Your task to perform on an android device: turn on the 24-hour format for clock Image 0: 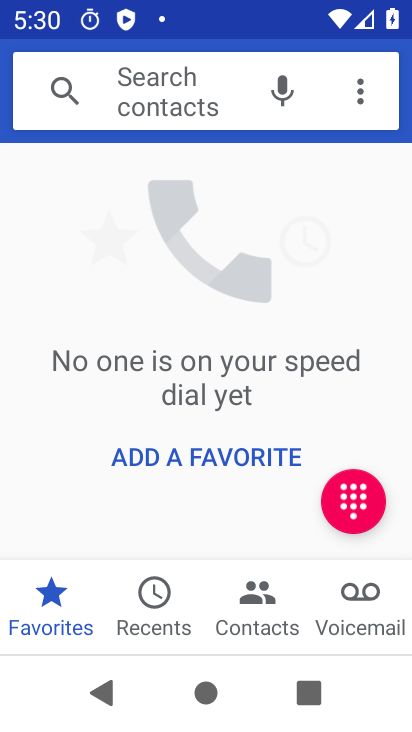
Step 0: press home button
Your task to perform on an android device: turn on the 24-hour format for clock Image 1: 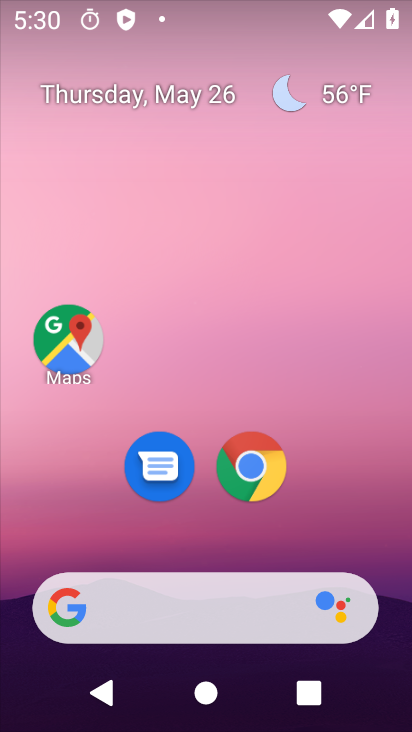
Step 1: drag from (333, 543) to (339, 102)
Your task to perform on an android device: turn on the 24-hour format for clock Image 2: 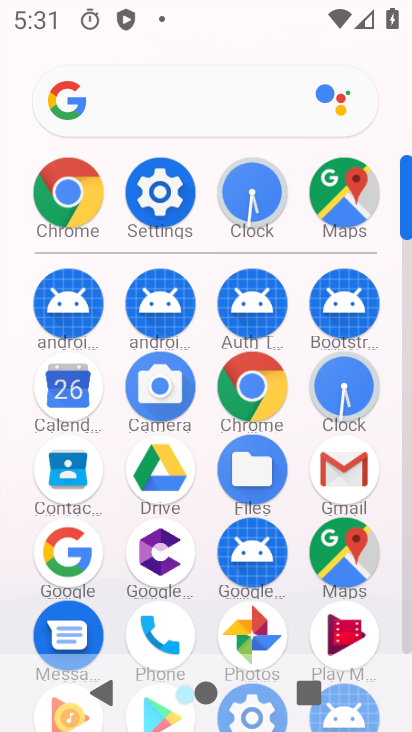
Step 2: click (348, 386)
Your task to perform on an android device: turn on the 24-hour format for clock Image 3: 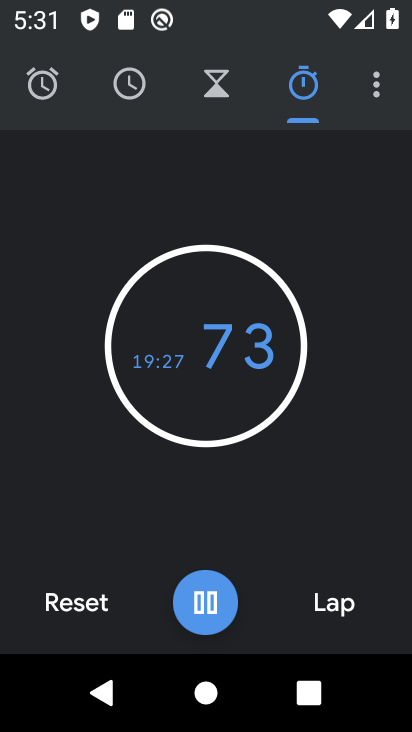
Step 3: click (375, 82)
Your task to perform on an android device: turn on the 24-hour format for clock Image 4: 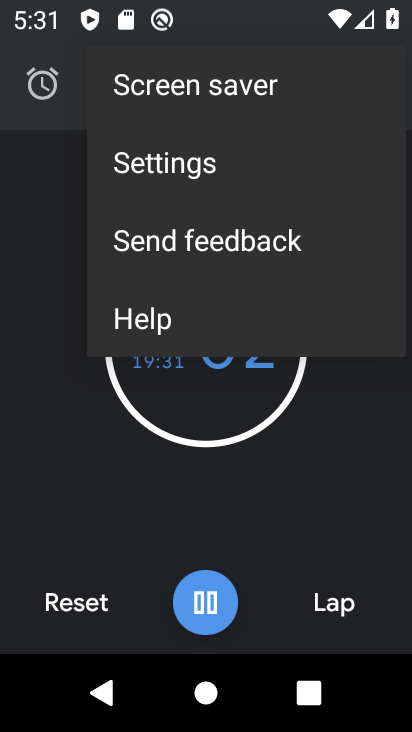
Step 4: click (190, 172)
Your task to perform on an android device: turn on the 24-hour format for clock Image 5: 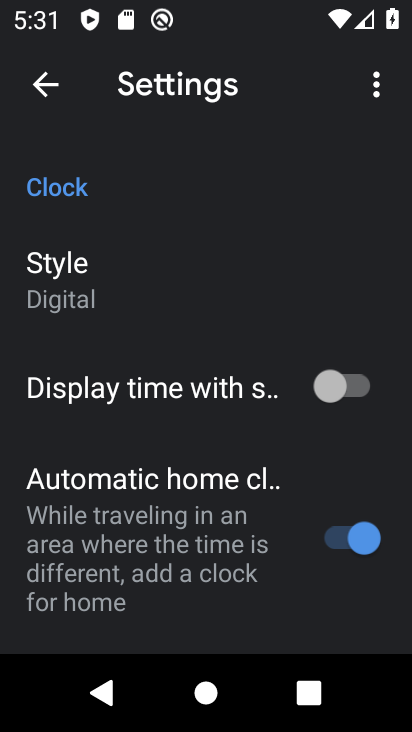
Step 5: drag from (337, 592) to (331, 153)
Your task to perform on an android device: turn on the 24-hour format for clock Image 6: 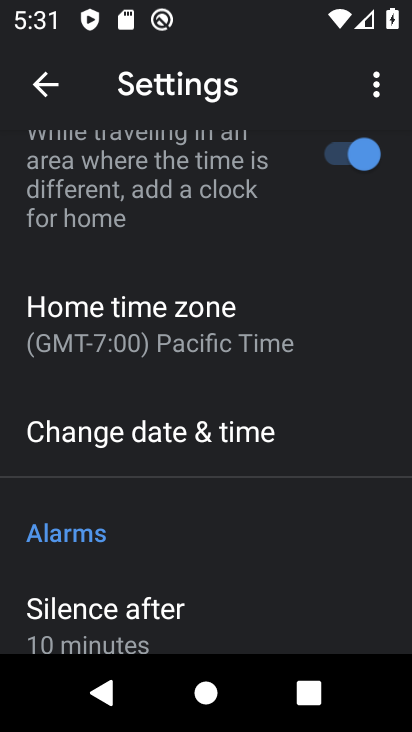
Step 6: click (212, 440)
Your task to perform on an android device: turn on the 24-hour format for clock Image 7: 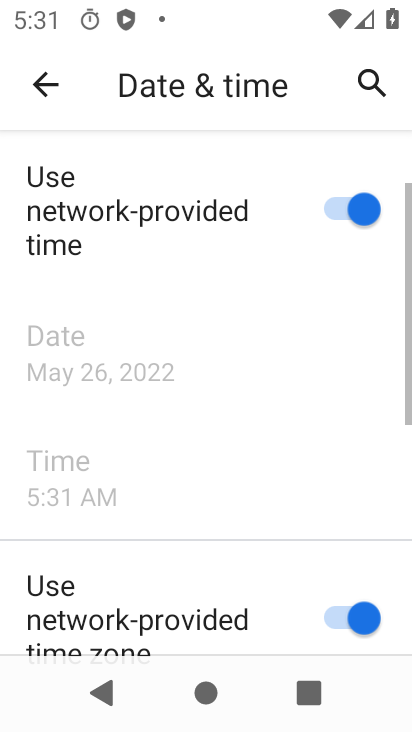
Step 7: drag from (265, 606) to (282, 183)
Your task to perform on an android device: turn on the 24-hour format for clock Image 8: 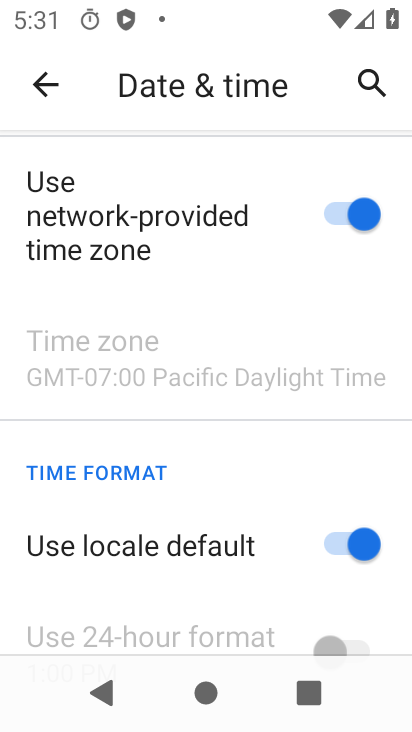
Step 8: drag from (301, 582) to (316, 292)
Your task to perform on an android device: turn on the 24-hour format for clock Image 9: 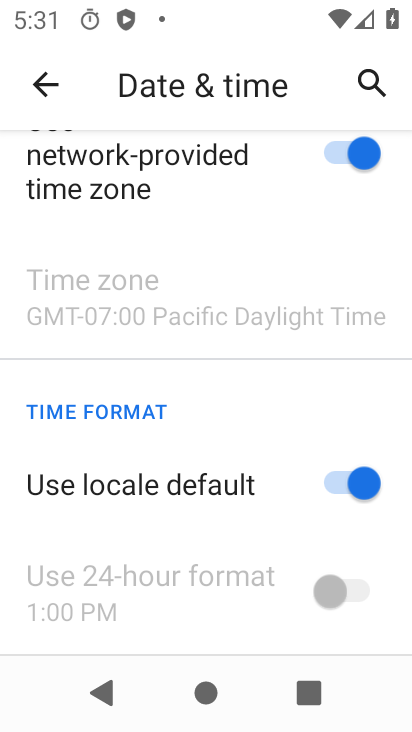
Step 9: click (337, 483)
Your task to perform on an android device: turn on the 24-hour format for clock Image 10: 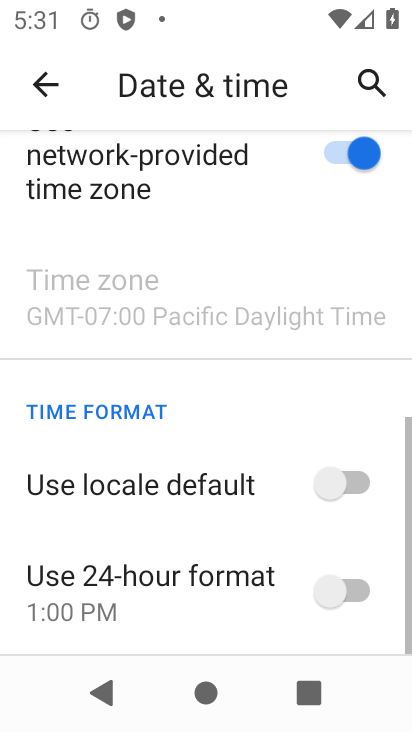
Step 10: click (354, 594)
Your task to perform on an android device: turn on the 24-hour format for clock Image 11: 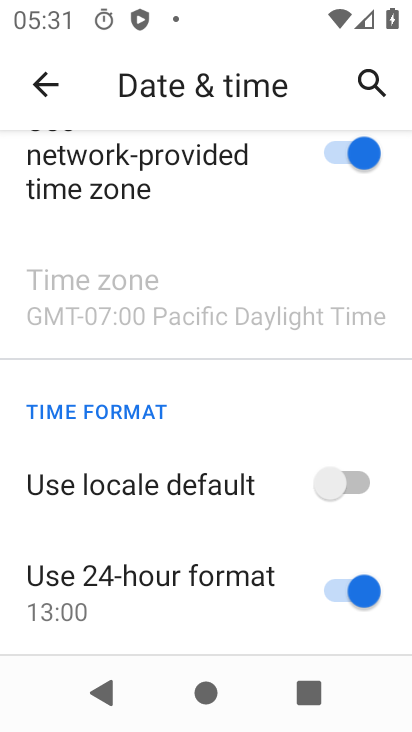
Step 11: task complete